Your task to perform on an android device: open app "TextNow: Call + Text Unlimited" Image 0: 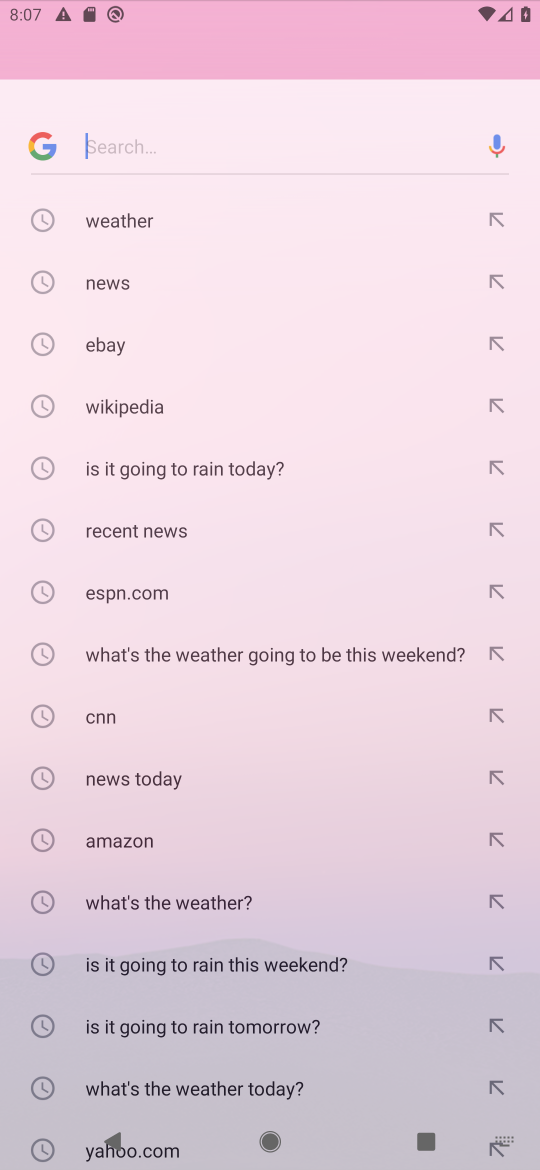
Step 0: press home button
Your task to perform on an android device: open app "TextNow: Call + Text Unlimited" Image 1: 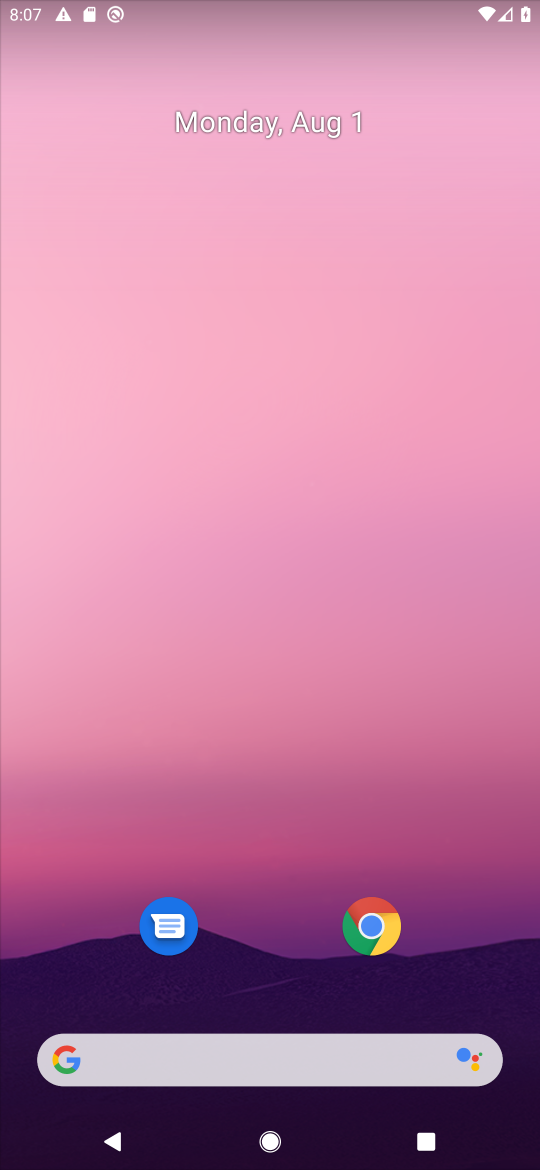
Step 1: drag from (292, 991) to (307, 215)
Your task to perform on an android device: open app "TextNow: Call + Text Unlimited" Image 2: 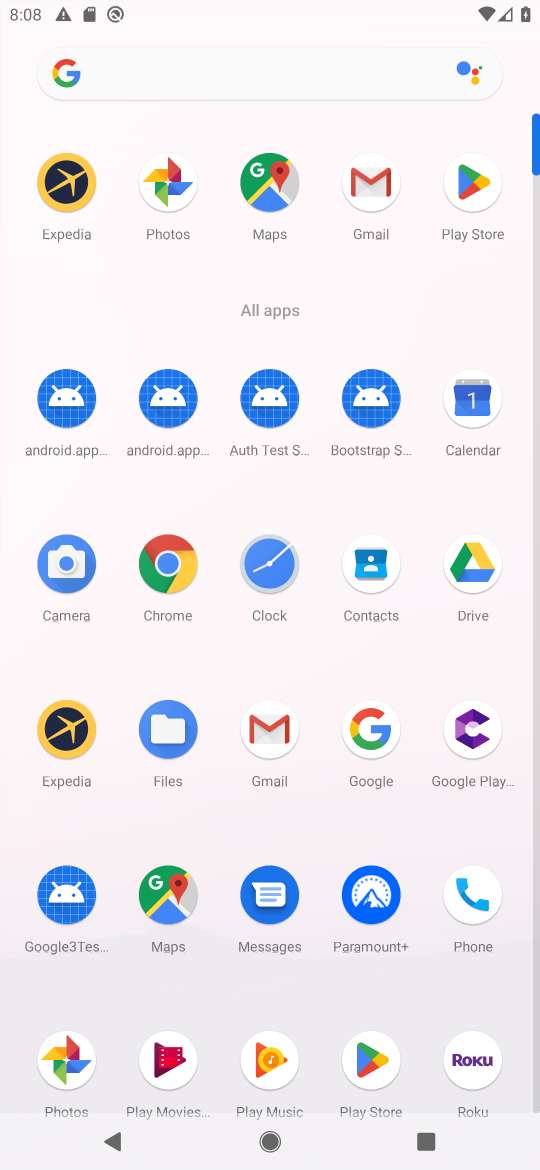
Step 2: click (469, 175)
Your task to perform on an android device: open app "TextNow: Call + Text Unlimited" Image 3: 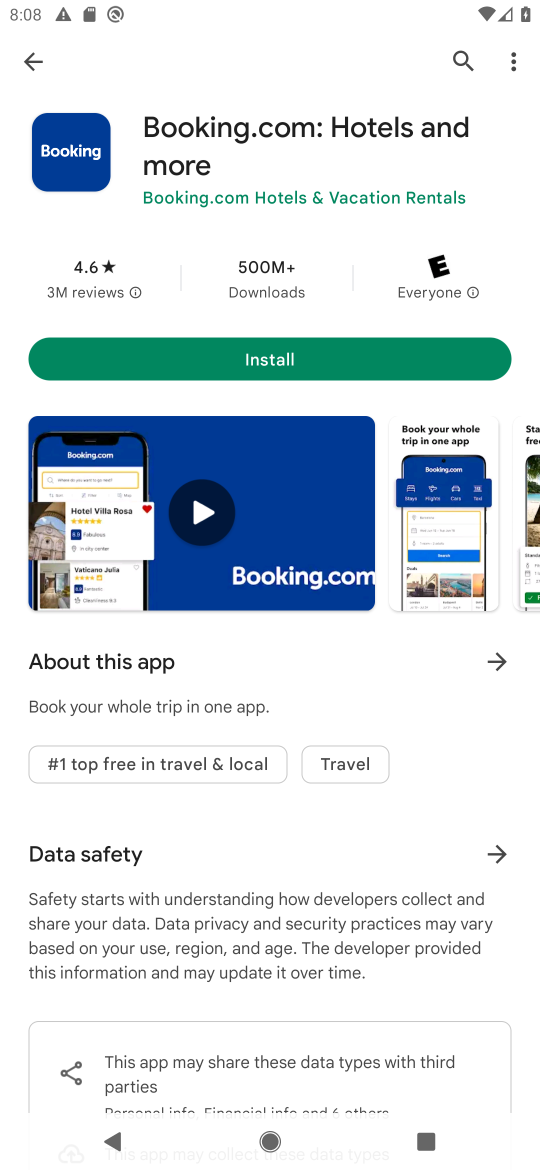
Step 3: click (38, 65)
Your task to perform on an android device: open app "TextNow: Call + Text Unlimited" Image 4: 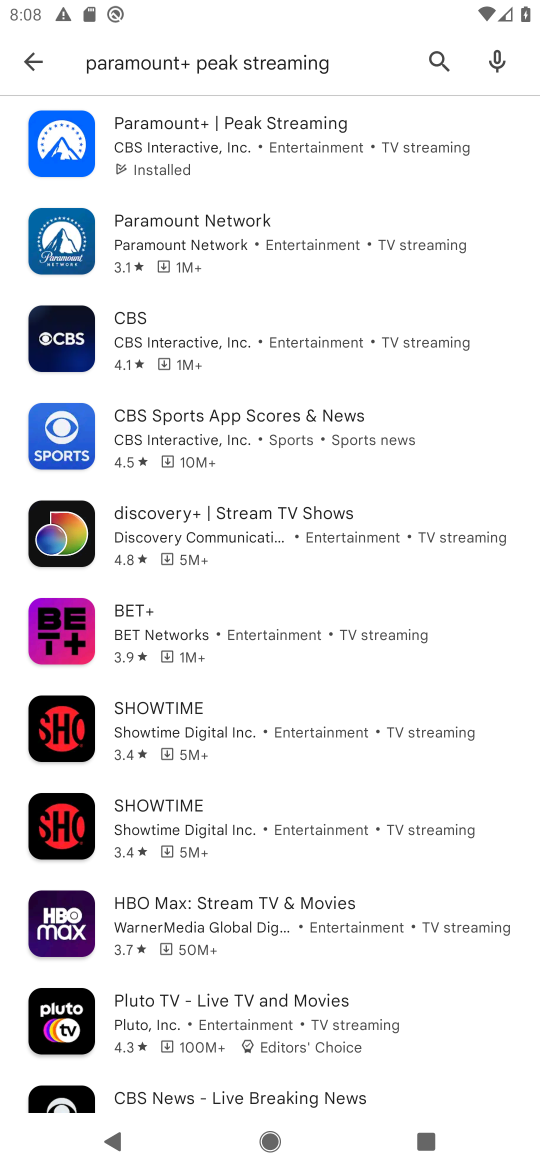
Step 4: click (436, 55)
Your task to perform on an android device: open app "TextNow: Call + Text Unlimited" Image 5: 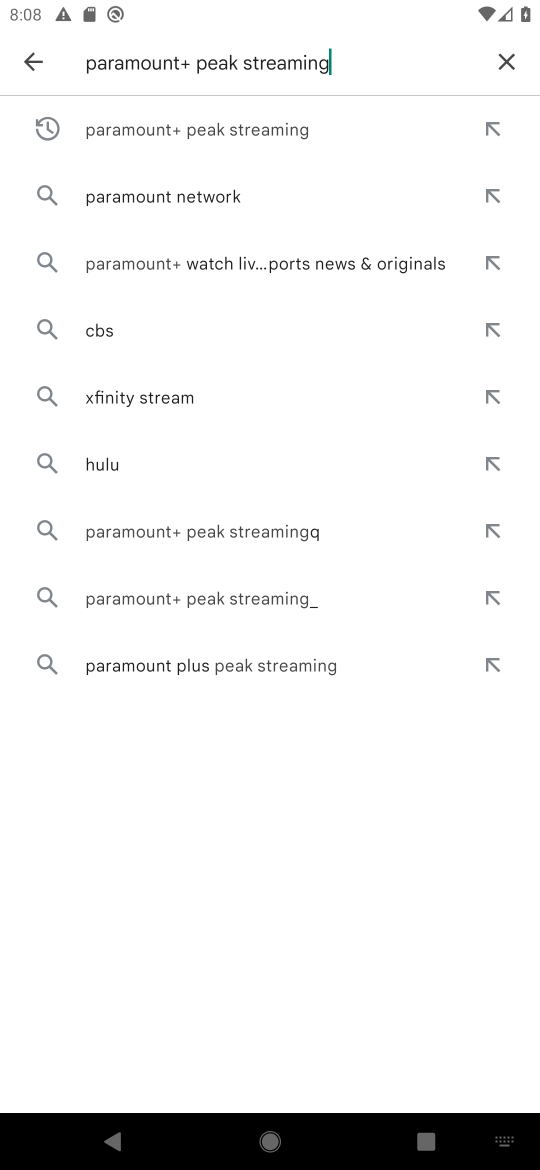
Step 5: click (511, 56)
Your task to perform on an android device: open app "TextNow: Call + Text Unlimited" Image 6: 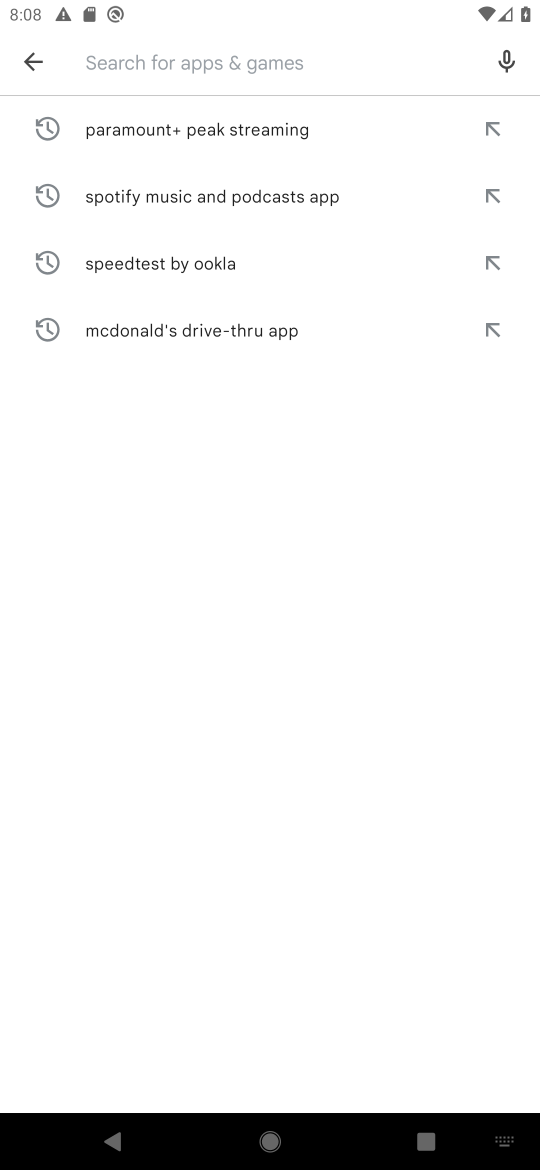
Step 6: type "TextNow: Call + Text Unlimited"
Your task to perform on an android device: open app "TextNow: Call + Text Unlimited" Image 7: 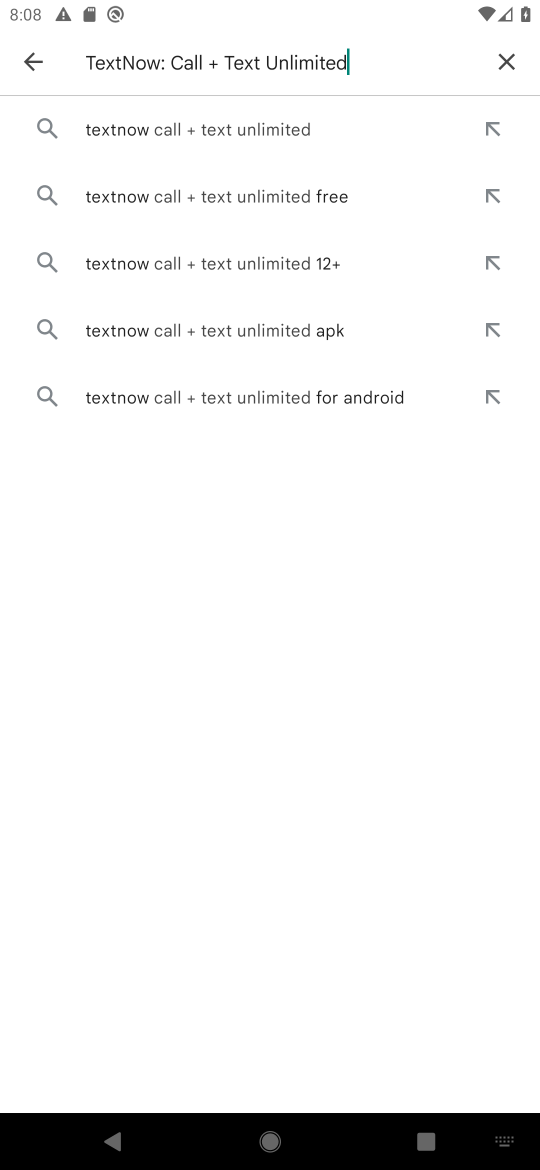
Step 7: click (319, 117)
Your task to perform on an android device: open app "TextNow: Call + Text Unlimited" Image 8: 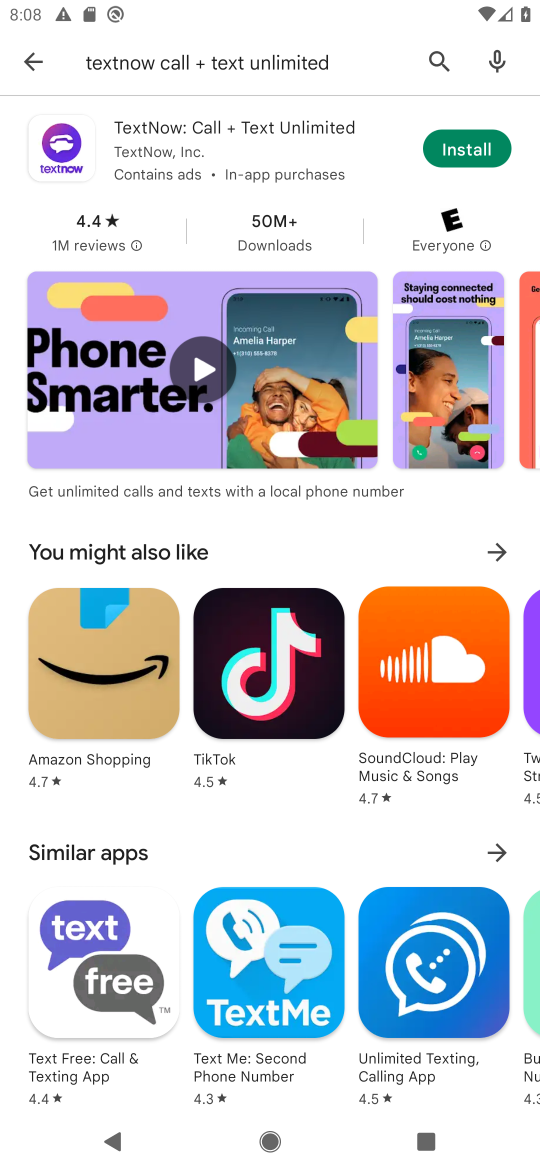
Step 8: task complete